Your task to perform on an android device: delete a single message in the gmail app Image 0: 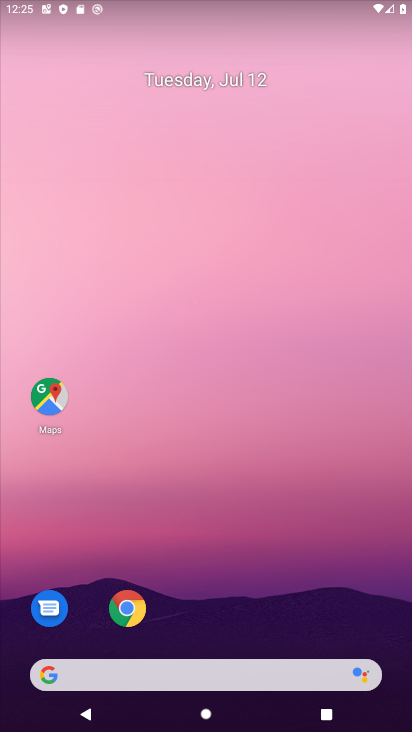
Step 0: drag from (168, 606) to (242, 26)
Your task to perform on an android device: delete a single message in the gmail app Image 1: 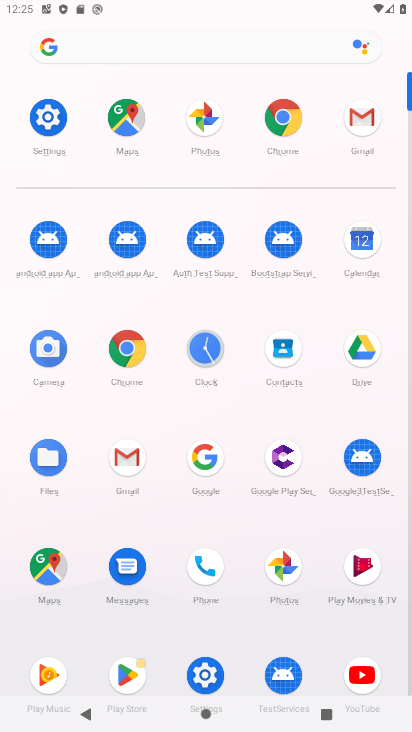
Step 1: click (350, 115)
Your task to perform on an android device: delete a single message in the gmail app Image 2: 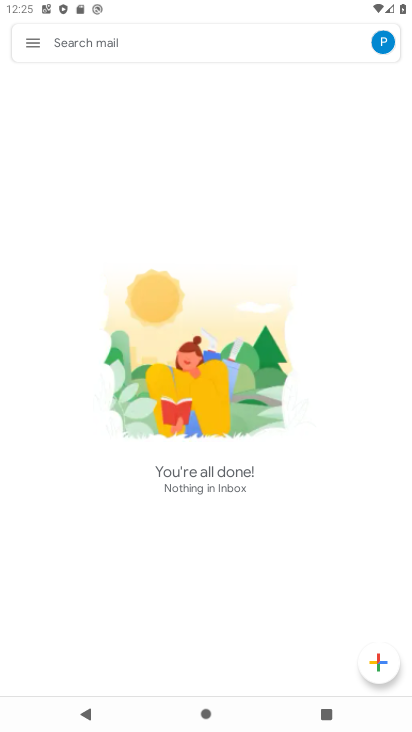
Step 2: task complete